Your task to perform on an android device: Empty the shopping cart on walmart. Add "macbook air" to the cart on walmart Image 0: 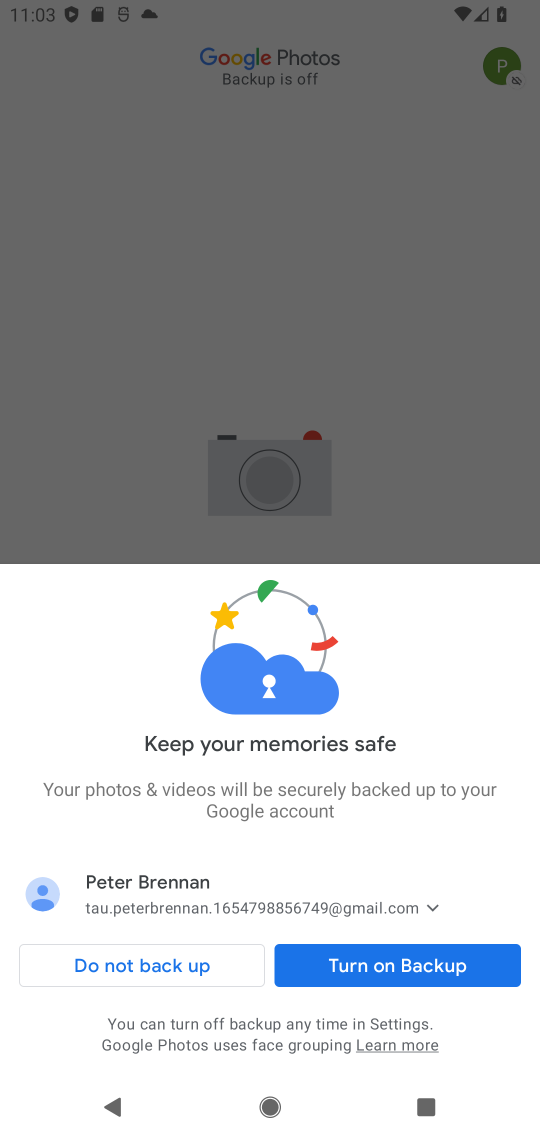
Step 0: press home button
Your task to perform on an android device: Empty the shopping cart on walmart. Add "macbook air" to the cart on walmart Image 1: 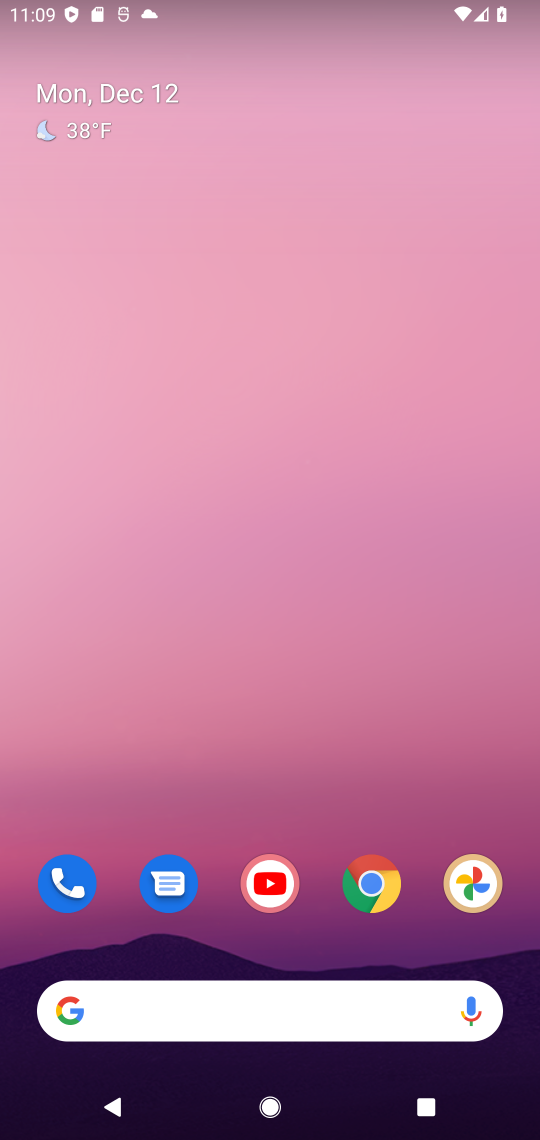
Step 1: click (184, 990)
Your task to perform on an android device: Empty the shopping cart on walmart. Add "macbook air" to the cart on walmart Image 2: 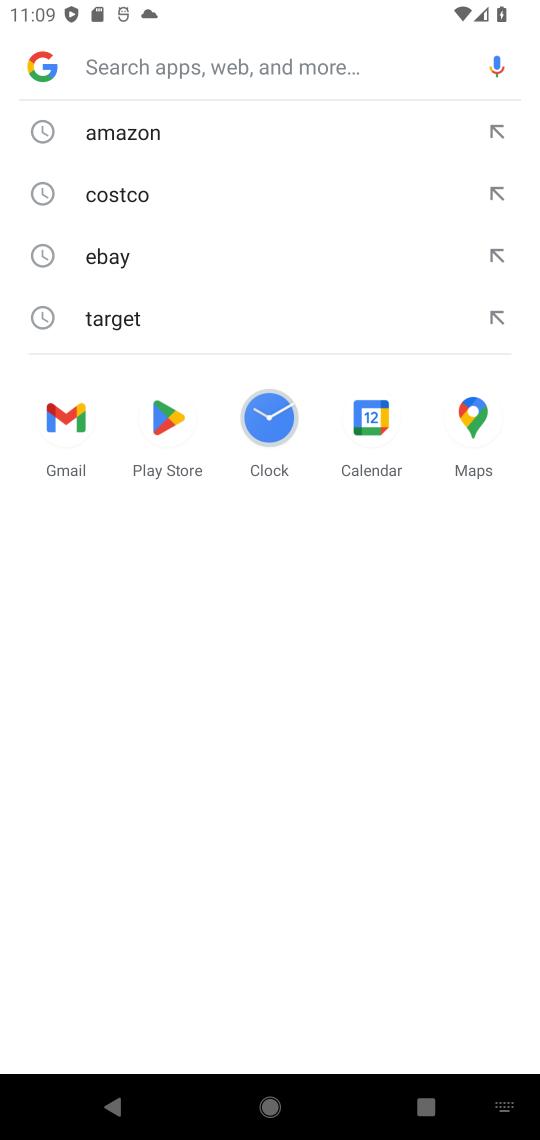
Step 2: click (174, 1001)
Your task to perform on an android device: Empty the shopping cart on walmart. Add "macbook air" to the cart on walmart Image 3: 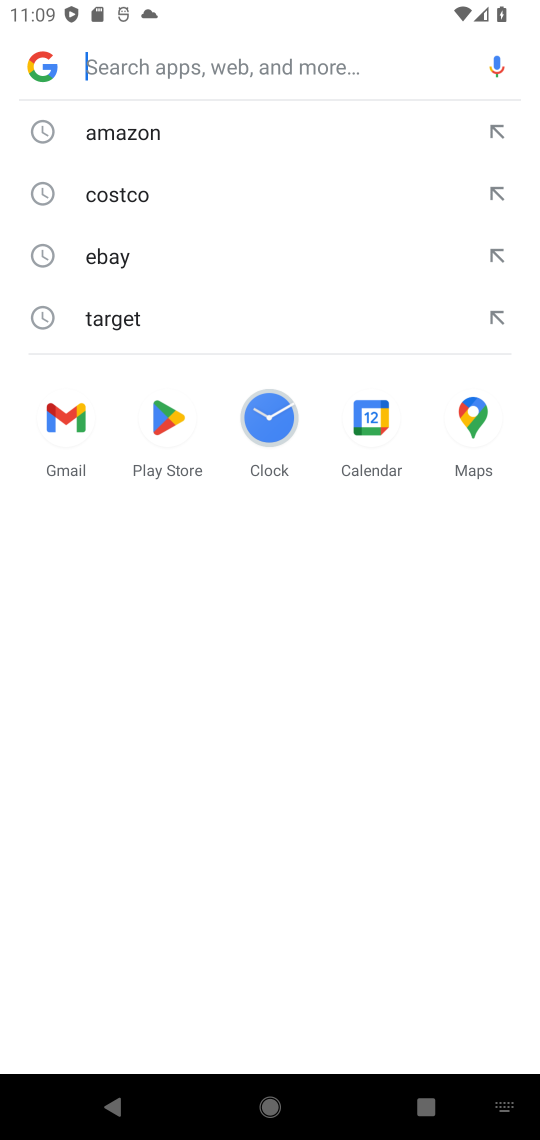
Step 3: click (243, 67)
Your task to perform on an android device: Empty the shopping cart on walmart. Add "macbook air" to the cart on walmart Image 4: 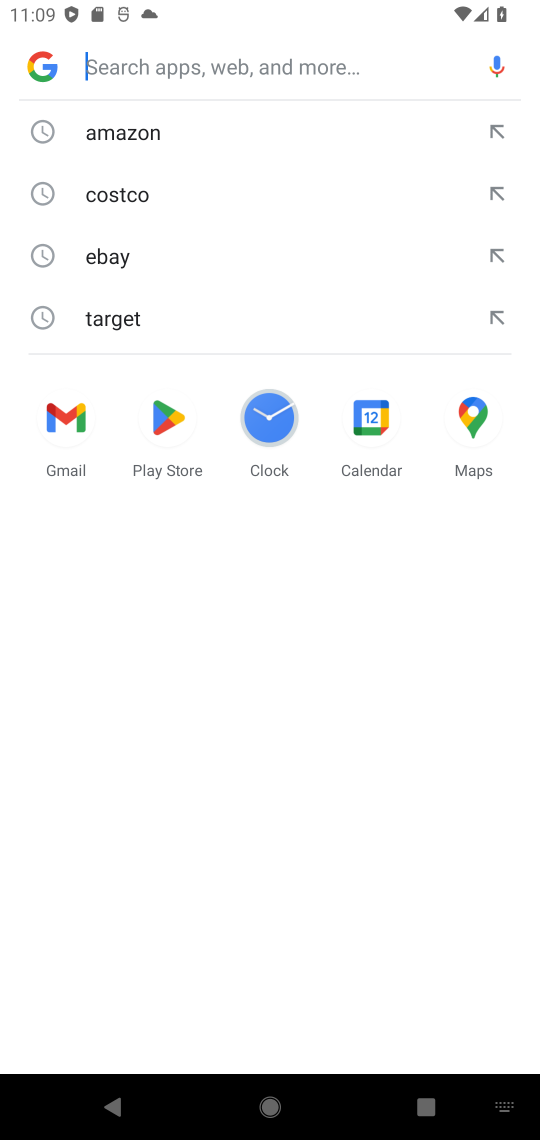
Step 4: type "walmart"
Your task to perform on an android device: Empty the shopping cart on walmart. Add "macbook air" to the cart on walmart Image 5: 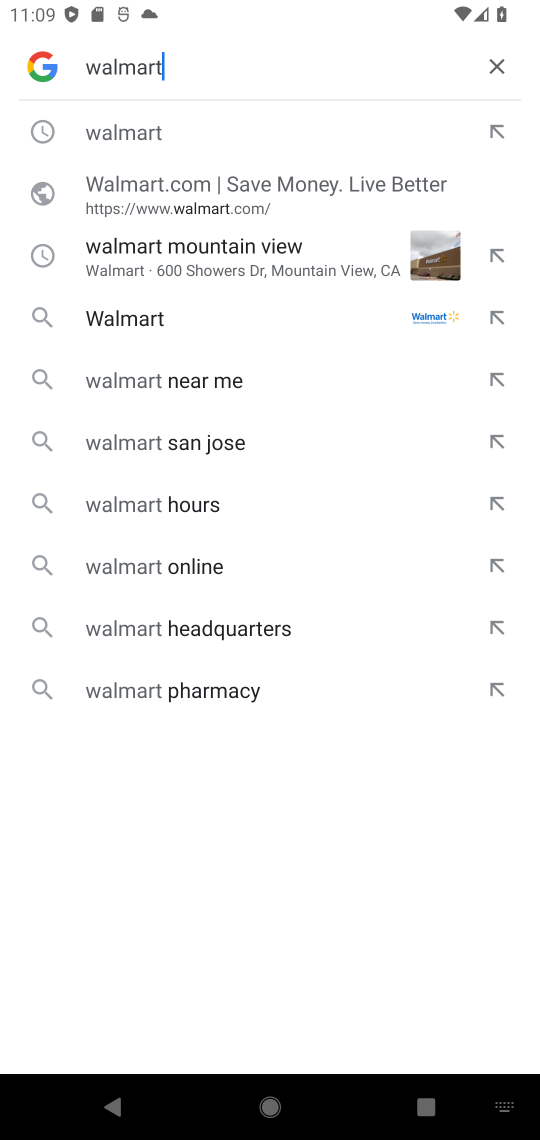
Step 5: click (127, 191)
Your task to perform on an android device: Empty the shopping cart on walmart. Add "macbook air" to the cart on walmart Image 6: 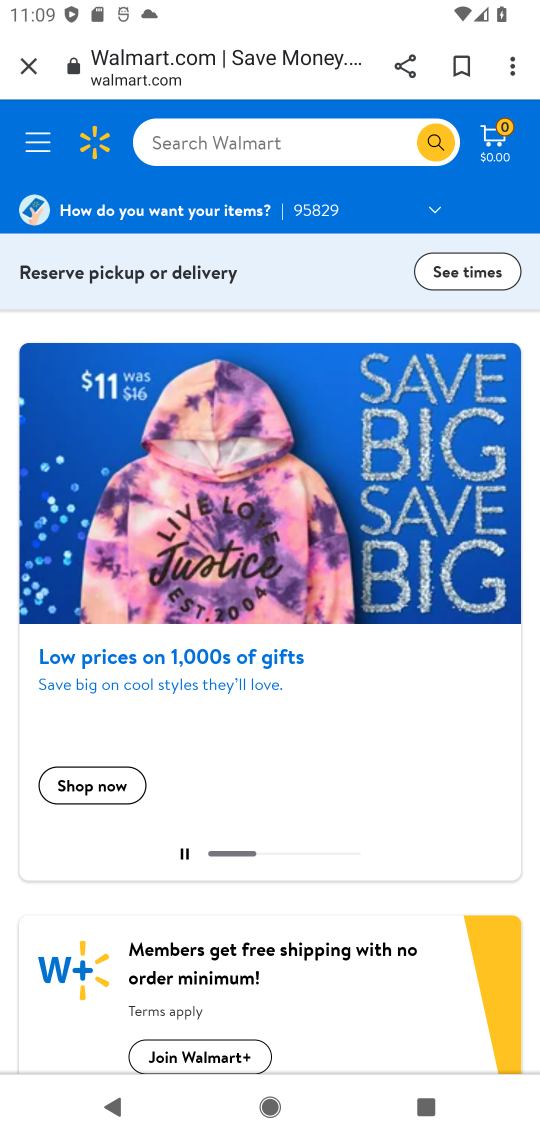
Step 6: click (490, 142)
Your task to perform on an android device: Empty the shopping cart on walmart. Add "macbook air" to the cart on walmart Image 7: 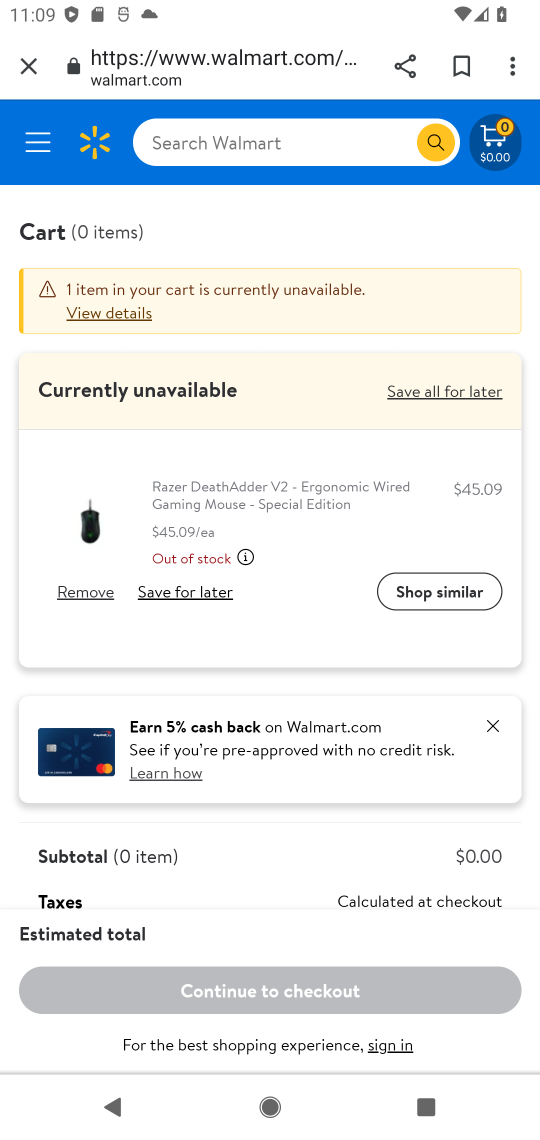
Step 7: click (262, 151)
Your task to perform on an android device: Empty the shopping cart on walmart. Add "macbook air" to the cart on walmart Image 8: 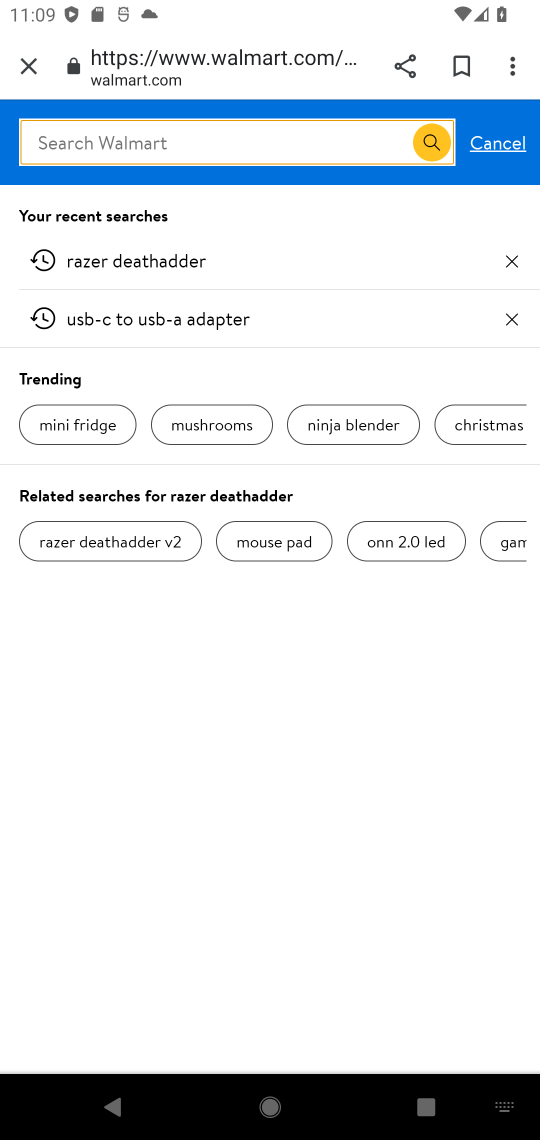
Step 8: type "macbook air"
Your task to perform on an android device: Empty the shopping cart on walmart. Add "macbook air" to the cart on walmart Image 9: 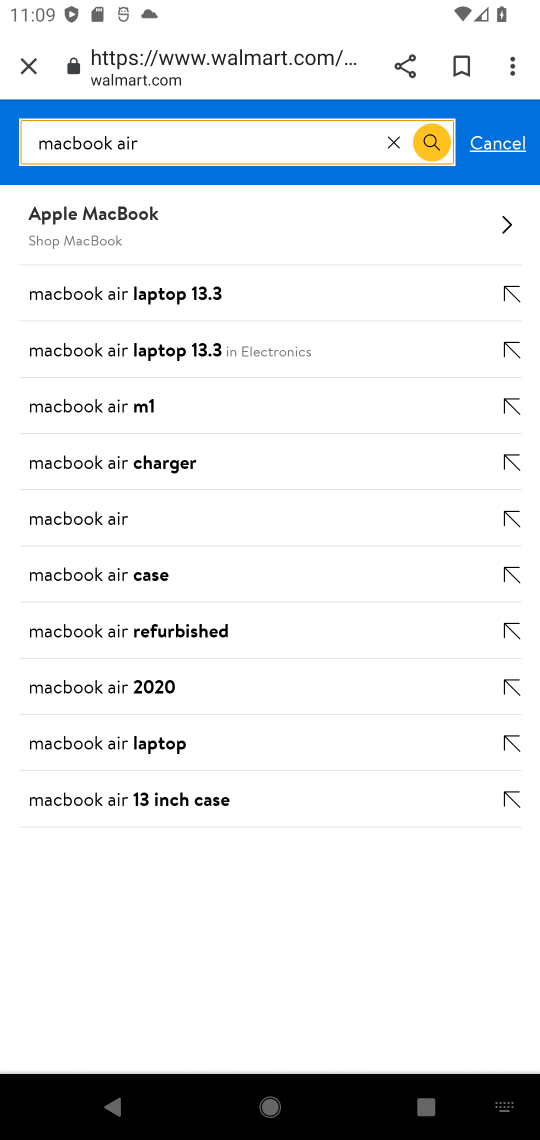
Step 9: click (64, 516)
Your task to perform on an android device: Empty the shopping cart on walmart. Add "macbook air" to the cart on walmart Image 10: 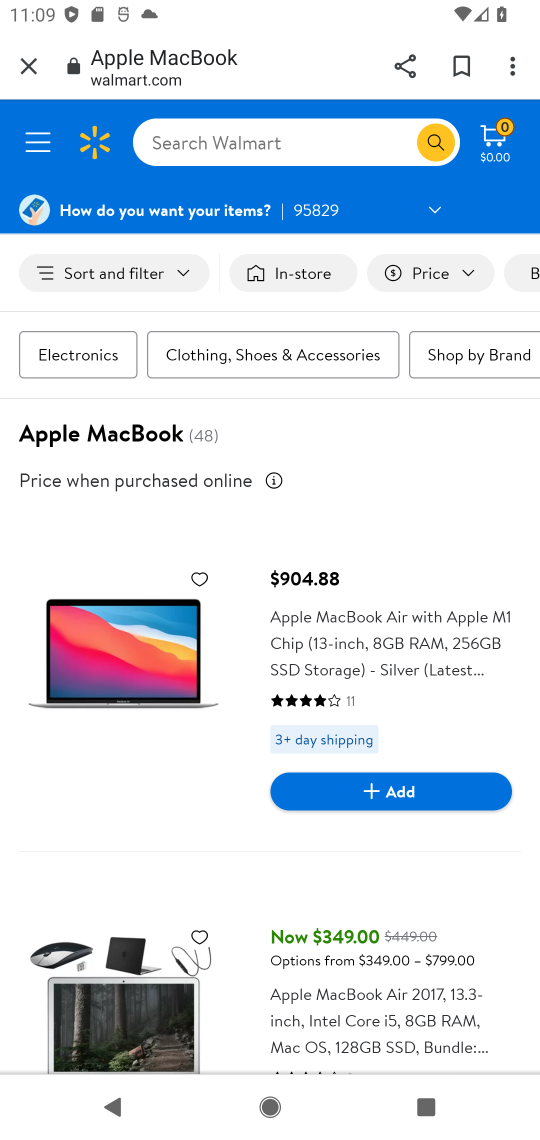
Step 10: click (367, 795)
Your task to perform on an android device: Empty the shopping cart on walmart. Add "macbook air" to the cart on walmart Image 11: 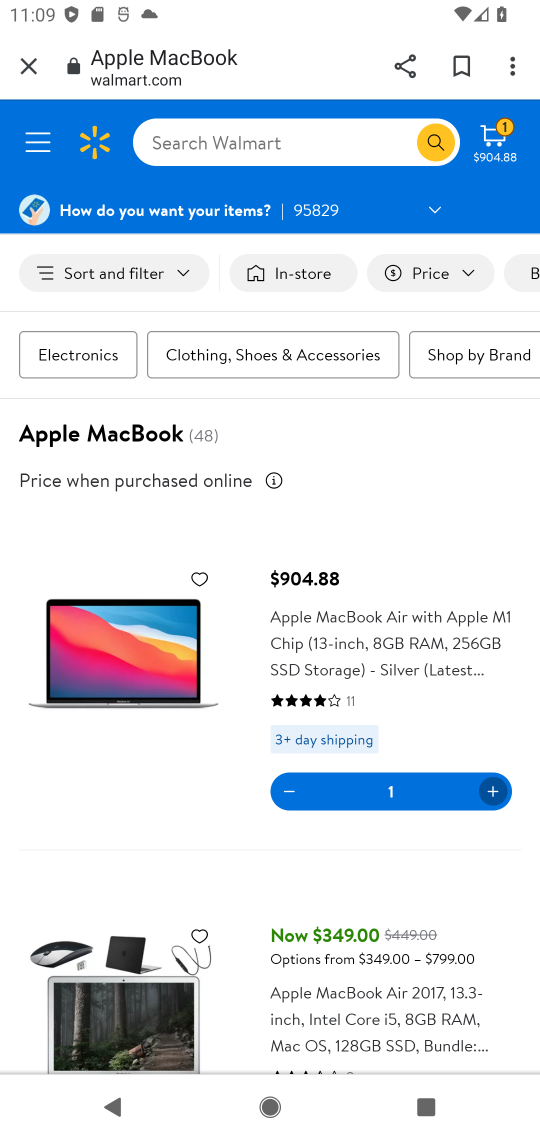
Step 11: task complete